Your task to perform on an android device: Clear all items from cart on amazon.com. Add "rayovac triple a" to the cart on amazon.com Image 0: 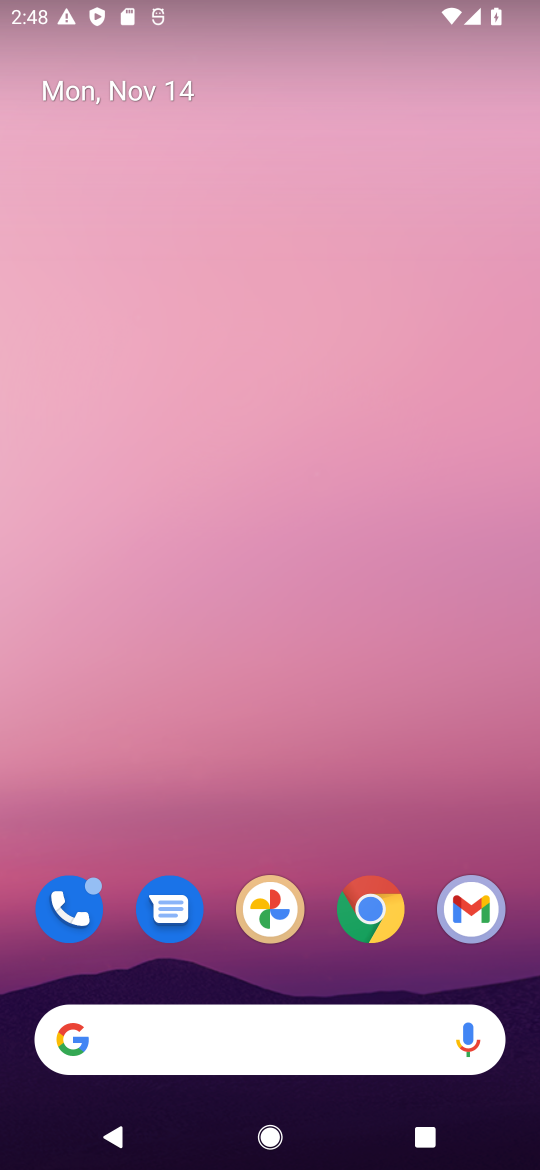
Step 0: click (189, 107)
Your task to perform on an android device: Clear all items from cart on amazon.com. Add "rayovac triple a" to the cart on amazon.com Image 1: 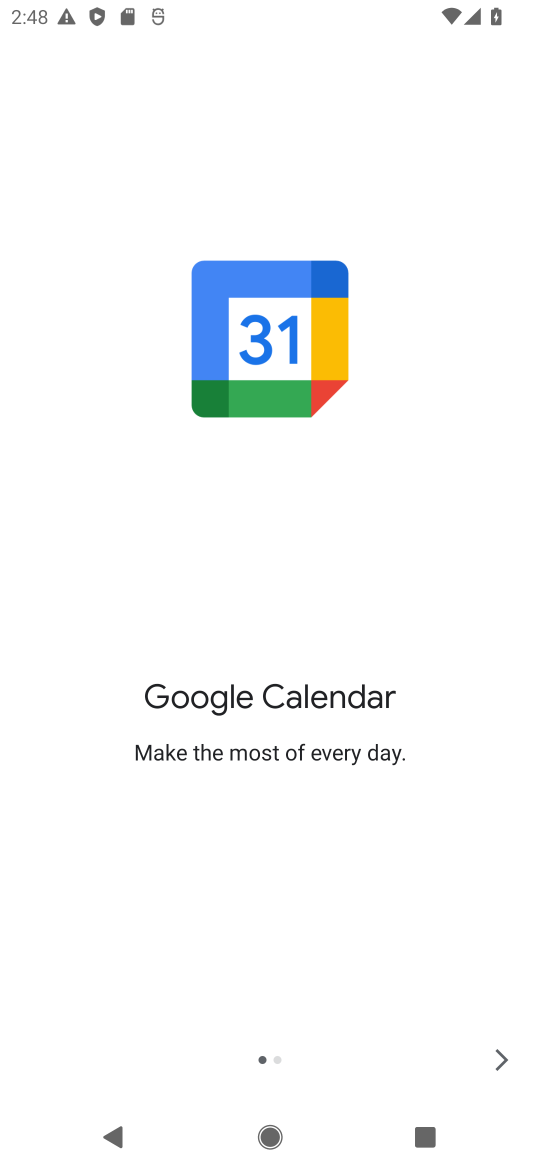
Step 1: press home button
Your task to perform on an android device: Clear all items from cart on amazon.com. Add "rayovac triple a" to the cart on amazon.com Image 2: 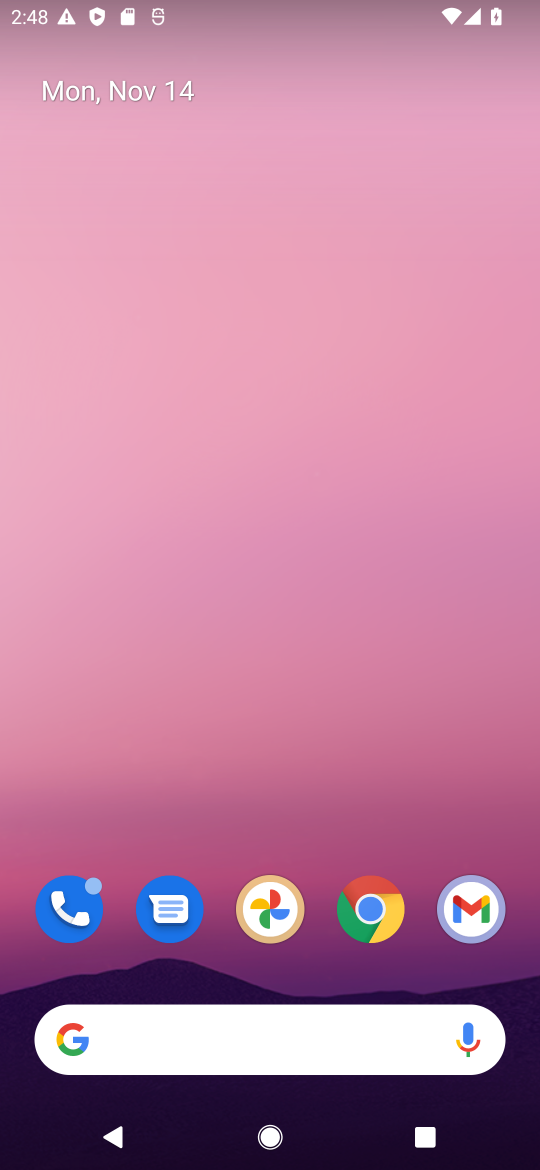
Step 2: drag from (292, 962) to (466, 262)
Your task to perform on an android device: Clear all items from cart on amazon.com. Add "rayovac triple a" to the cart on amazon.com Image 3: 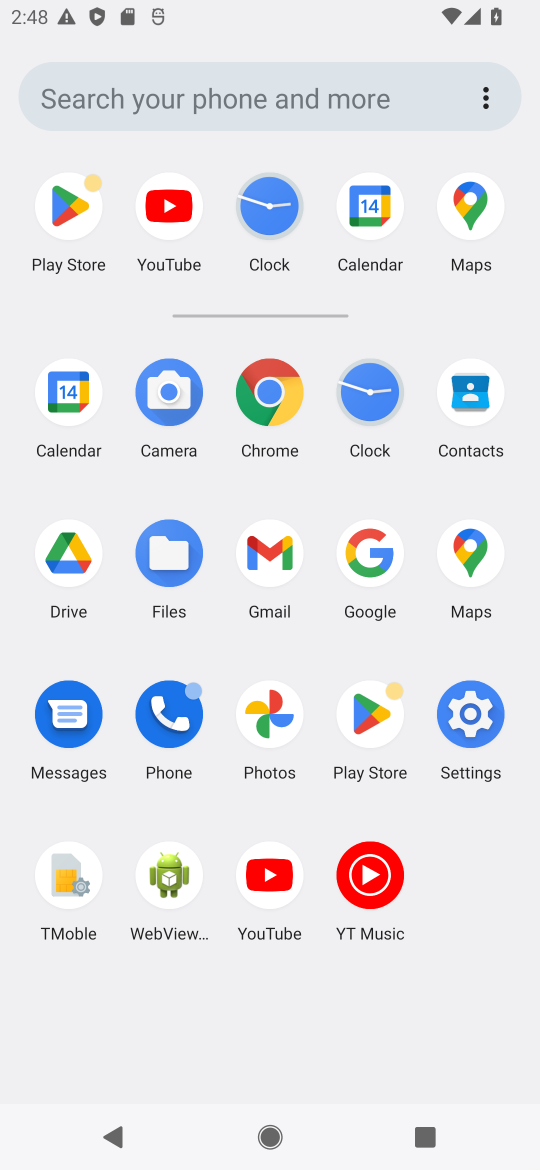
Step 3: click (271, 393)
Your task to perform on an android device: Clear all items from cart on amazon.com. Add "rayovac triple a" to the cart on amazon.com Image 4: 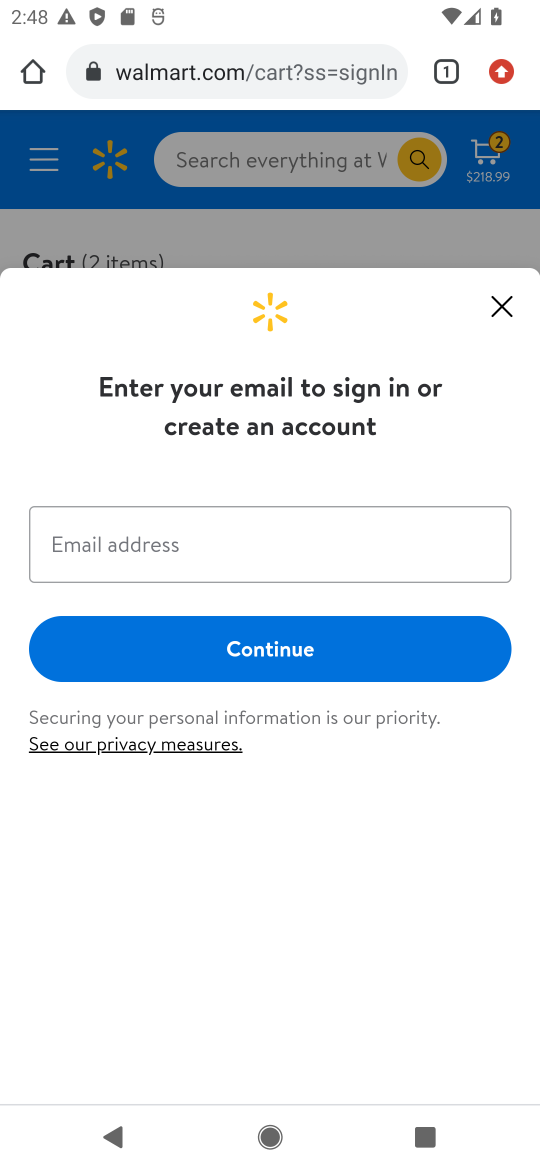
Step 4: click (296, 77)
Your task to perform on an android device: Clear all items from cart on amazon.com. Add "rayovac triple a" to the cart on amazon.com Image 5: 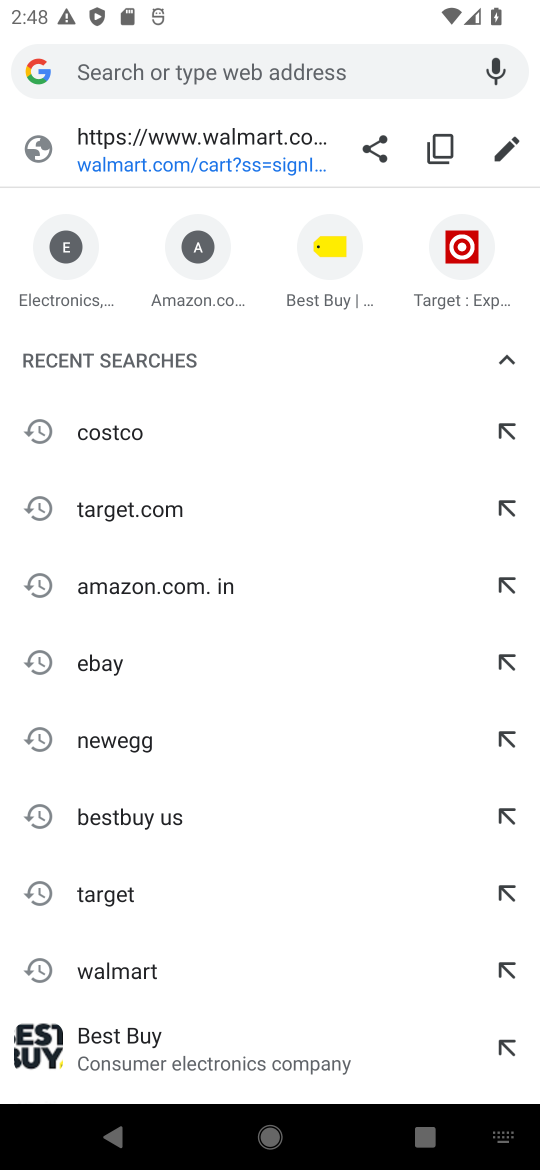
Step 5: type "amazon.com"
Your task to perform on an android device: Clear all items from cart on amazon.com. Add "rayovac triple a" to the cart on amazon.com Image 6: 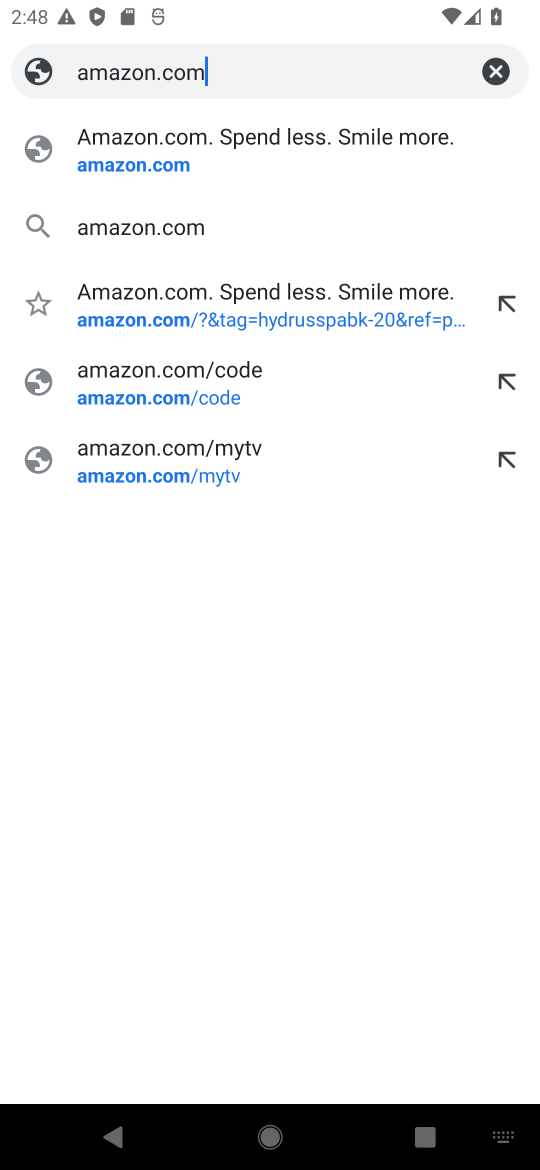
Step 6: press enter
Your task to perform on an android device: Clear all items from cart on amazon.com. Add "rayovac triple a" to the cart on amazon.com Image 7: 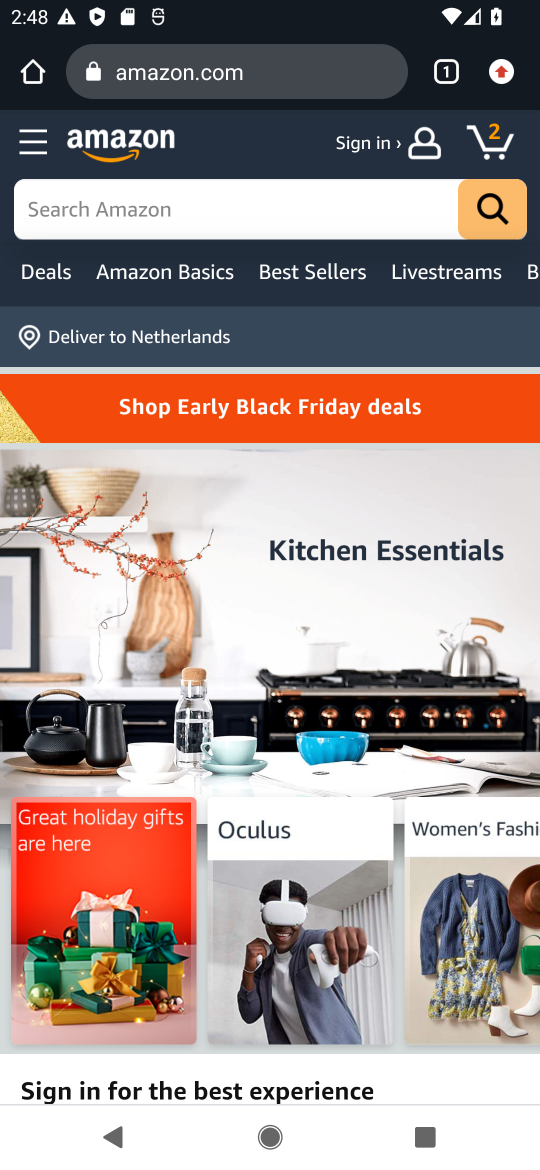
Step 7: click (486, 146)
Your task to perform on an android device: Clear all items from cart on amazon.com. Add "rayovac triple a" to the cart on amazon.com Image 8: 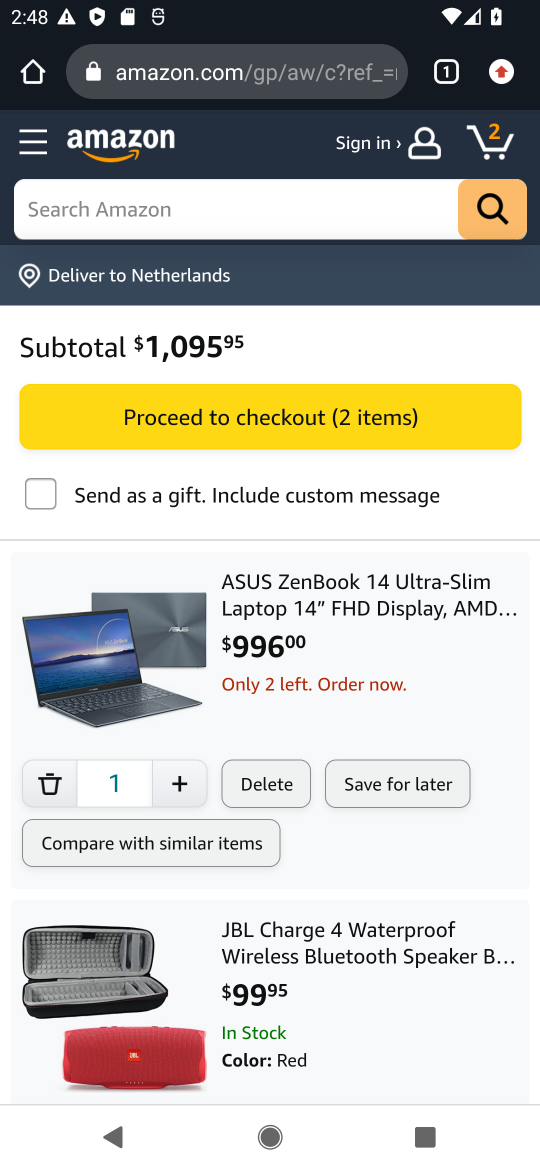
Step 8: click (45, 782)
Your task to perform on an android device: Clear all items from cart on amazon.com. Add "rayovac triple a" to the cart on amazon.com Image 9: 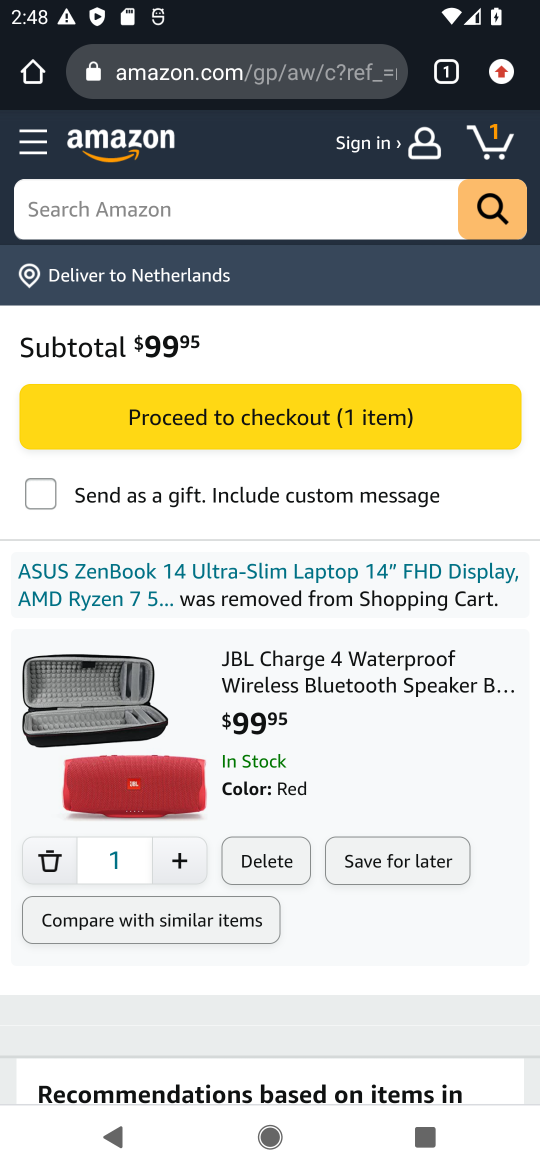
Step 9: click (54, 859)
Your task to perform on an android device: Clear all items from cart on amazon.com. Add "rayovac triple a" to the cart on amazon.com Image 10: 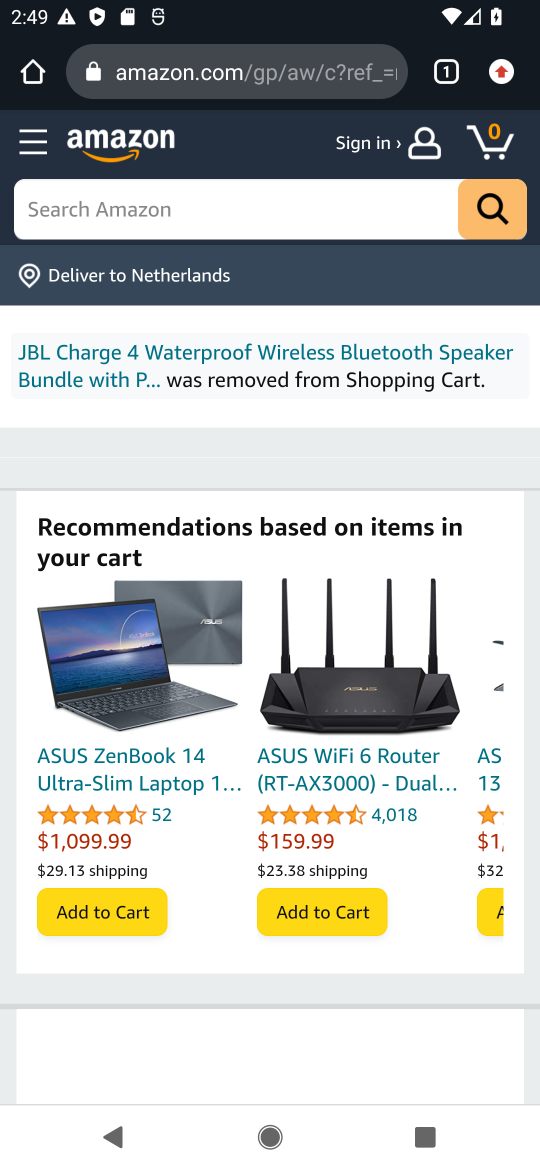
Step 10: click (255, 218)
Your task to perform on an android device: Clear all items from cart on amazon.com. Add "rayovac triple a" to the cart on amazon.com Image 11: 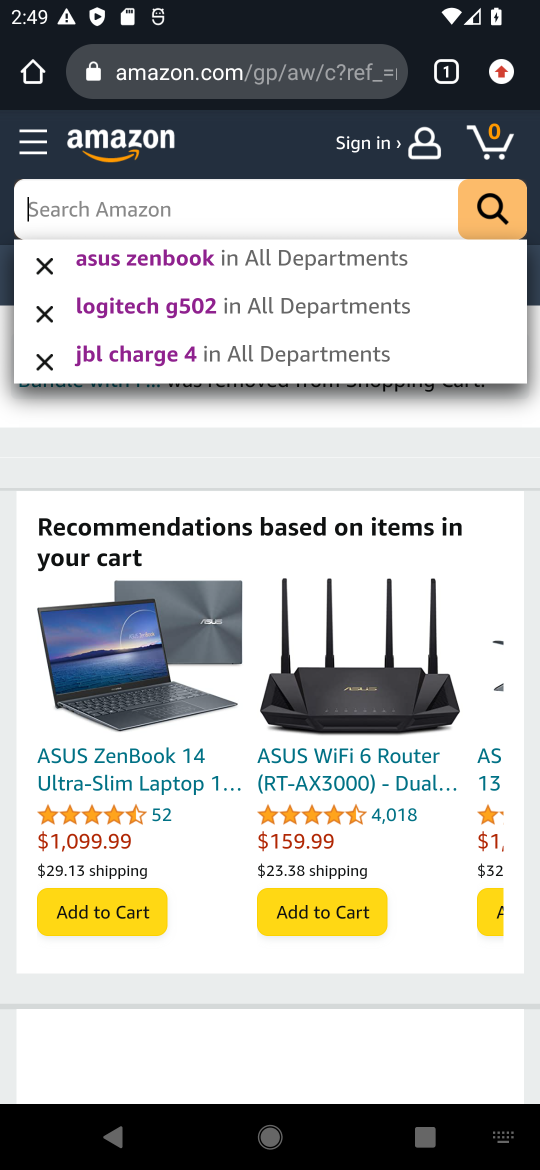
Step 11: type "rayovac triple a"
Your task to perform on an android device: Clear all items from cart on amazon.com. Add "rayovac triple a" to the cart on amazon.com Image 12: 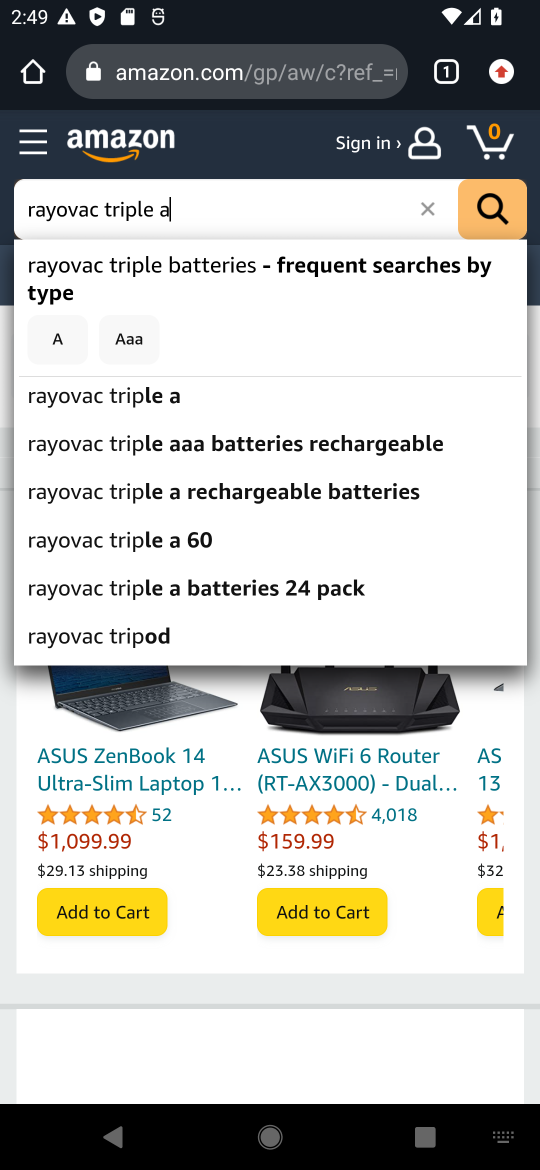
Step 12: press enter
Your task to perform on an android device: Clear all items from cart on amazon.com. Add "rayovac triple a" to the cart on amazon.com Image 13: 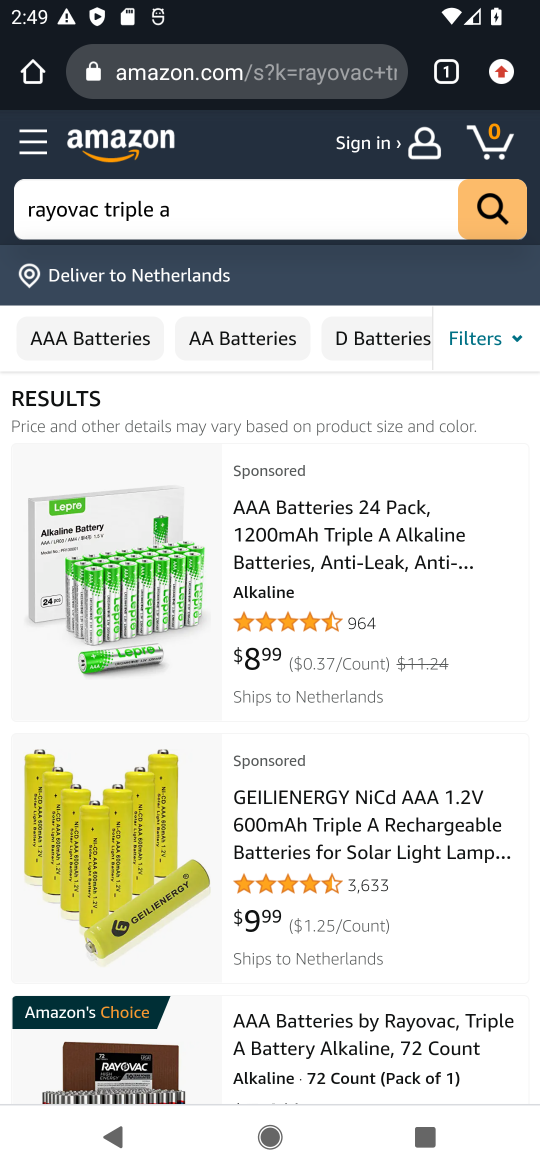
Step 13: click (328, 559)
Your task to perform on an android device: Clear all items from cart on amazon.com. Add "rayovac triple a" to the cart on amazon.com Image 14: 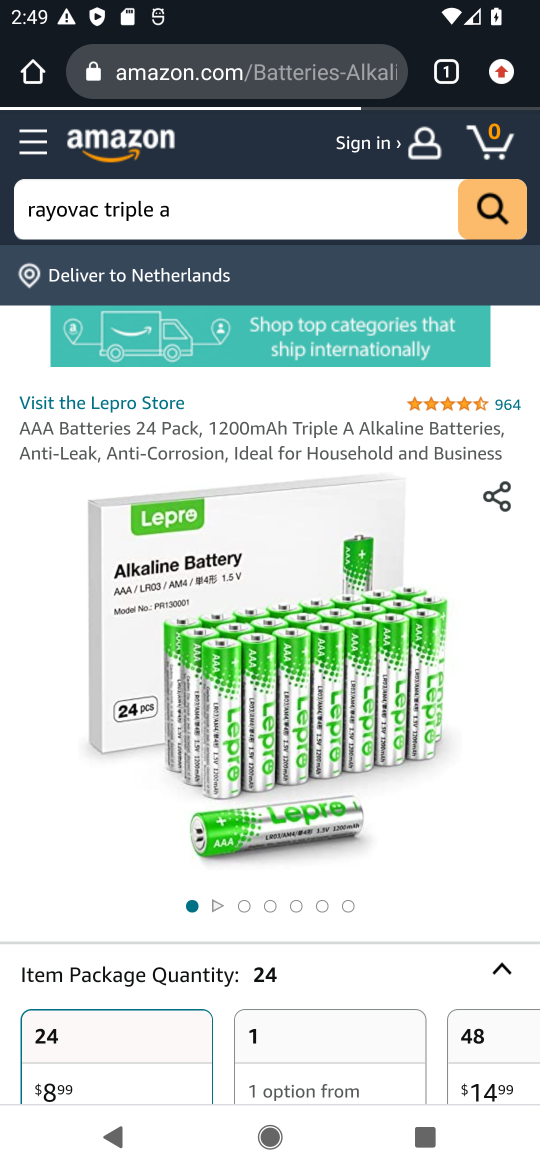
Step 14: press back button
Your task to perform on an android device: Clear all items from cart on amazon.com. Add "rayovac triple a" to the cart on amazon.com Image 15: 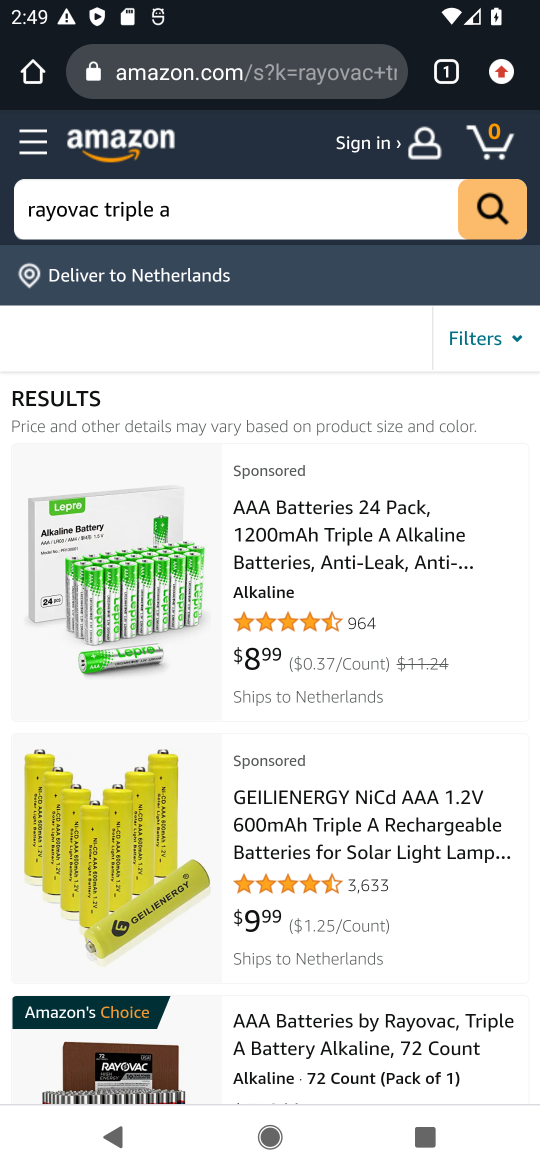
Step 15: drag from (417, 930) to (341, 400)
Your task to perform on an android device: Clear all items from cart on amazon.com. Add "rayovac triple a" to the cart on amazon.com Image 16: 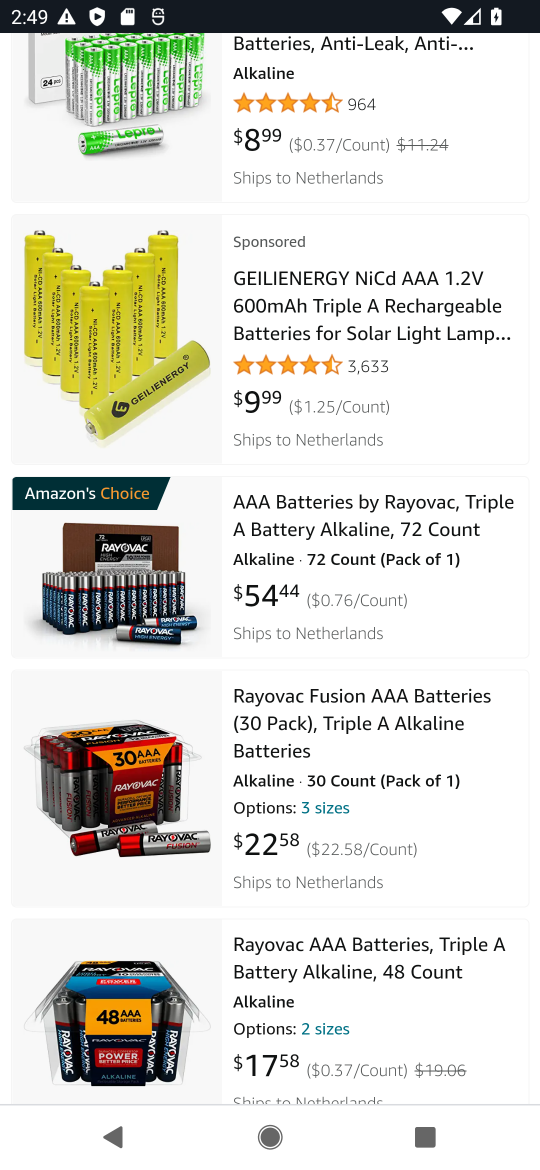
Step 16: click (119, 575)
Your task to perform on an android device: Clear all items from cart on amazon.com. Add "rayovac triple a" to the cart on amazon.com Image 17: 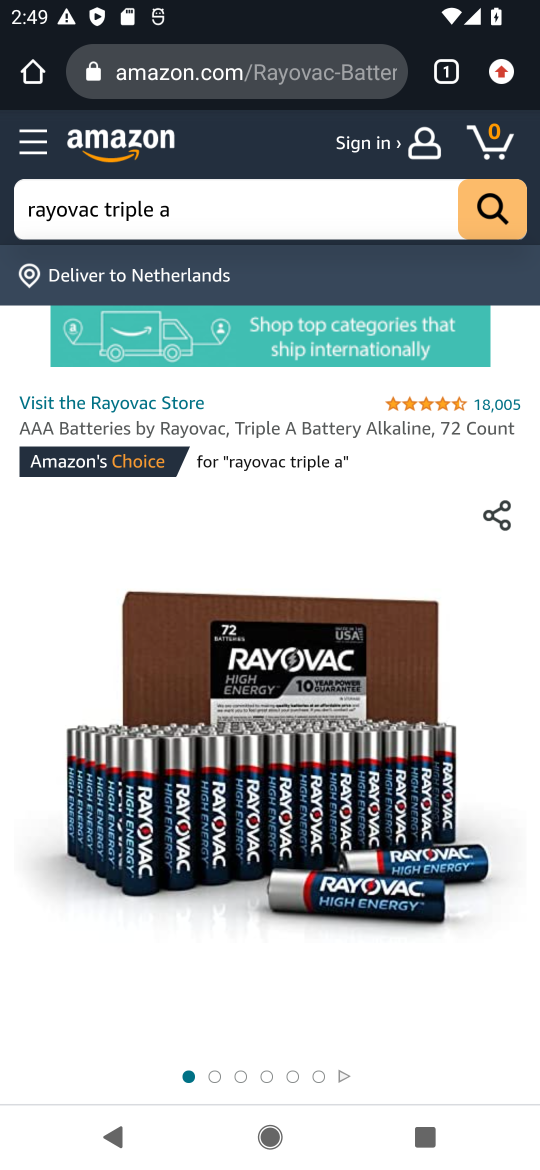
Step 17: drag from (162, 881) to (315, 146)
Your task to perform on an android device: Clear all items from cart on amazon.com. Add "rayovac triple a" to the cart on amazon.com Image 18: 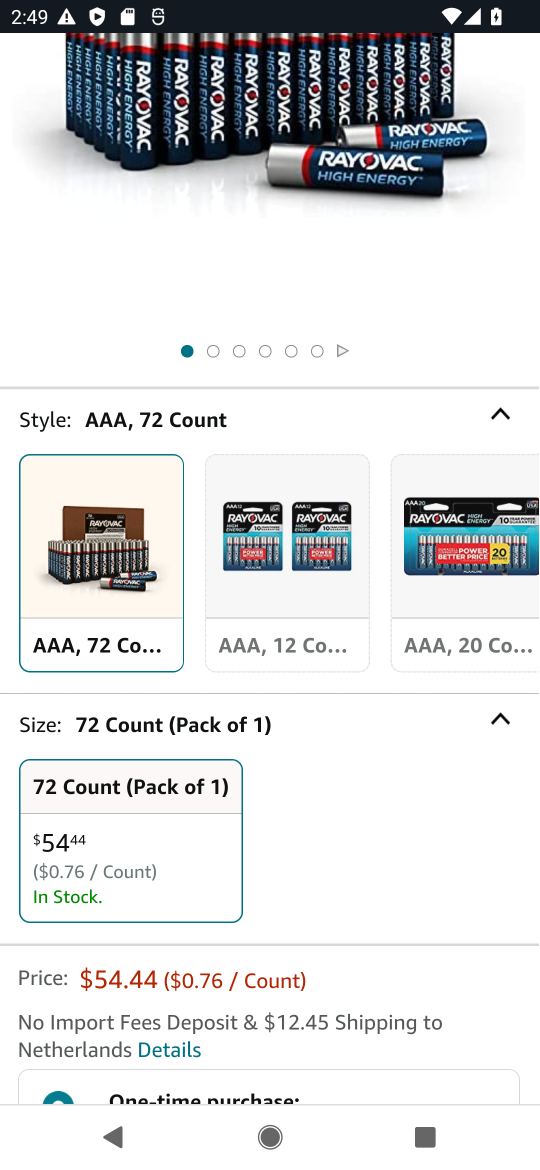
Step 18: drag from (278, 949) to (421, 176)
Your task to perform on an android device: Clear all items from cart on amazon.com. Add "rayovac triple a" to the cart on amazon.com Image 19: 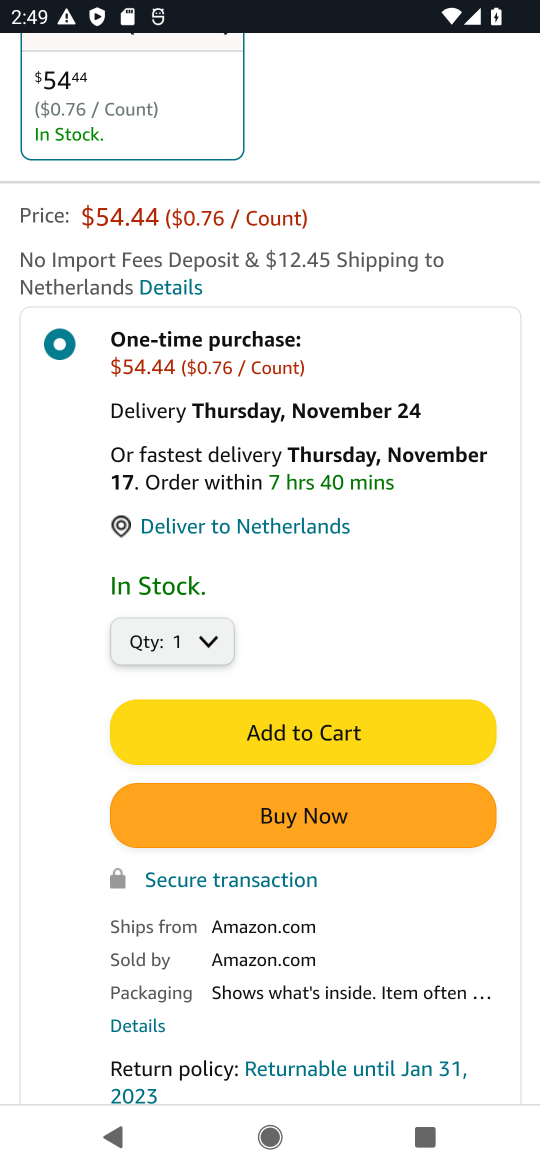
Step 19: click (309, 732)
Your task to perform on an android device: Clear all items from cart on amazon.com. Add "rayovac triple a" to the cart on amazon.com Image 20: 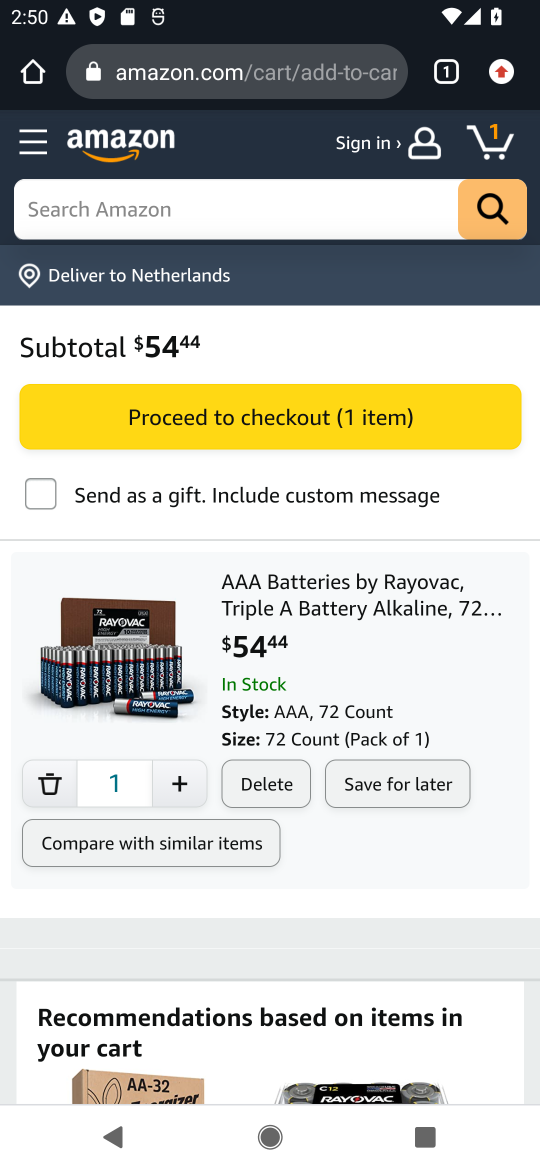
Step 20: task complete